Your task to perform on an android device: Open display settings Image 0: 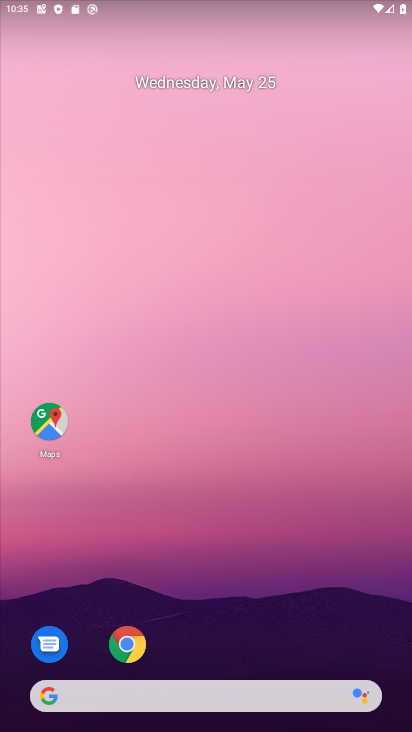
Step 0: drag from (268, 490) to (152, 40)
Your task to perform on an android device: Open display settings Image 1: 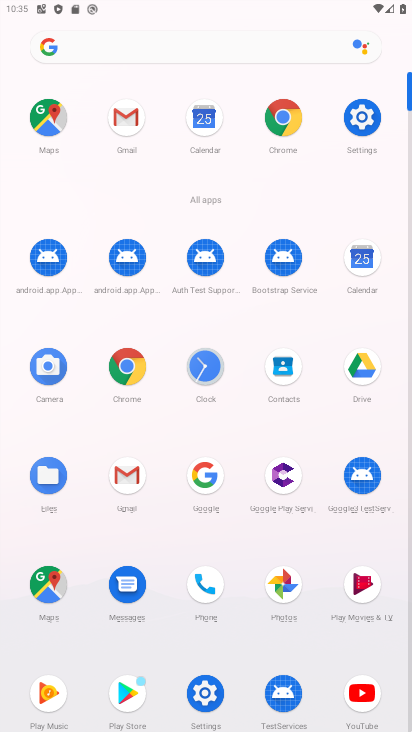
Step 1: click (361, 119)
Your task to perform on an android device: Open display settings Image 2: 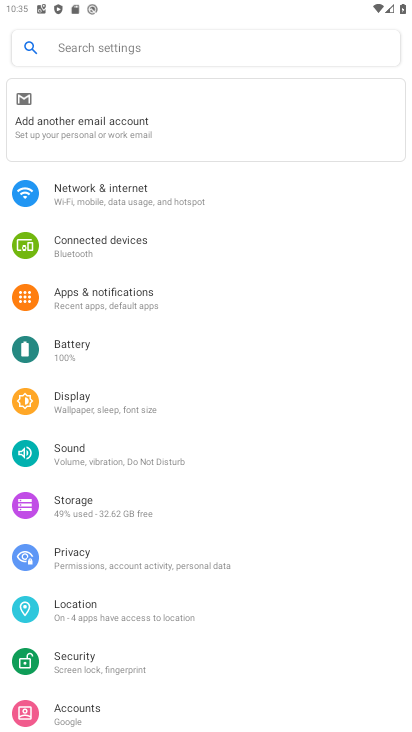
Step 2: click (69, 398)
Your task to perform on an android device: Open display settings Image 3: 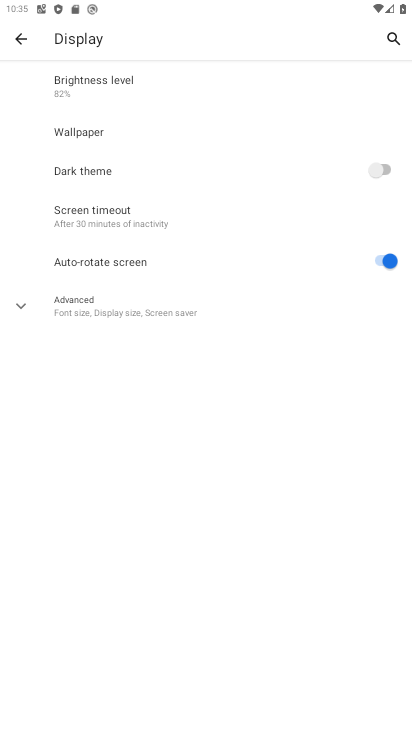
Step 3: task complete